Your task to perform on an android device: check battery use Image 0: 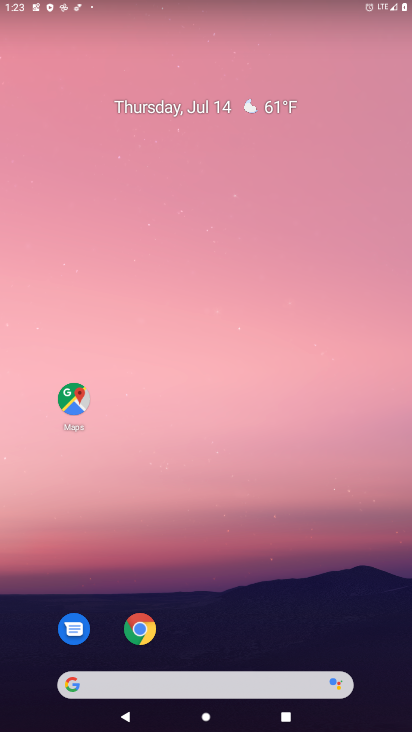
Step 0: drag from (244, 582) to (199, 232)
Your task to perform on an android device: check battery use Image 1: 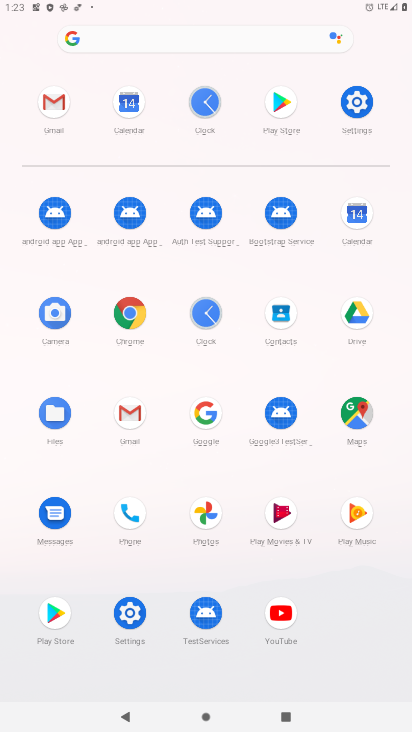
Step 1: click (351, 103)
Your task to perform on an android device: check battery use Image 2: 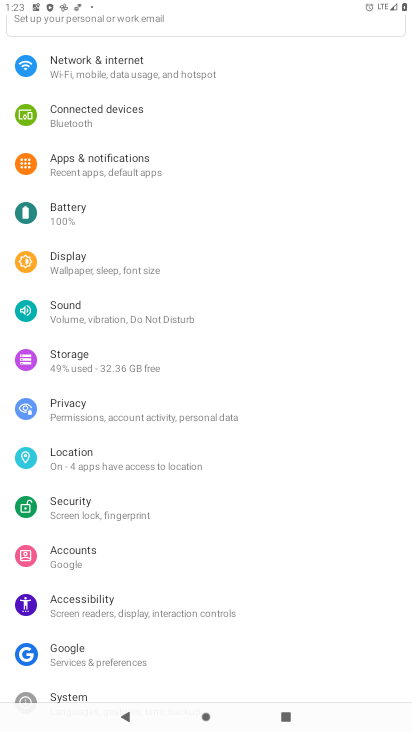
Step 2: click (65, 208)
Your task to perform on an android device: check battery use Image 3: 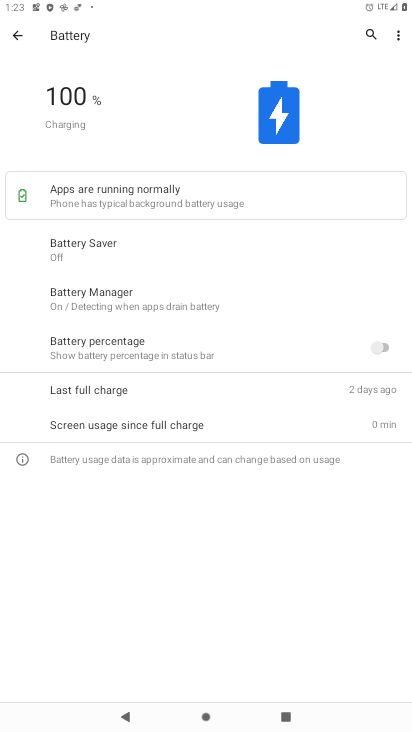
Step 3: task complete